Your task to perform on an android device: change the clock display to digital Image 0: 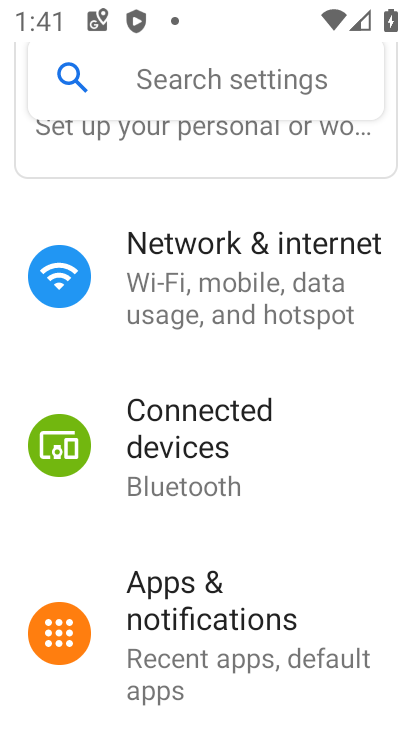
Step 0: press home button
Your task to perform on an android device: change the clock display to digital Image 1: 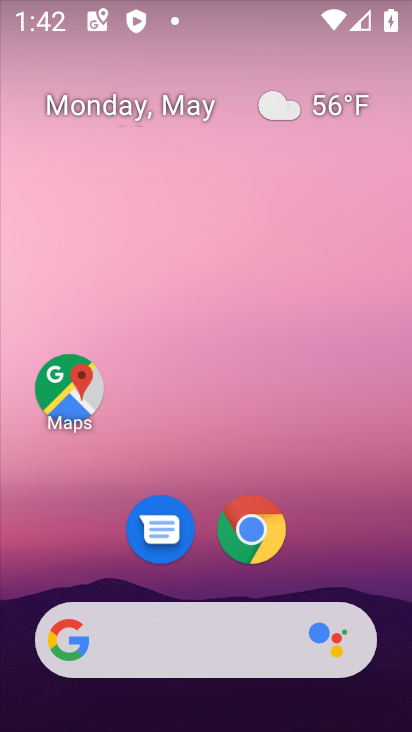
Step 1: drag from (319, 549) to (350, 68)
Your task to perform on an android device: change the clock display to digital Image 2: 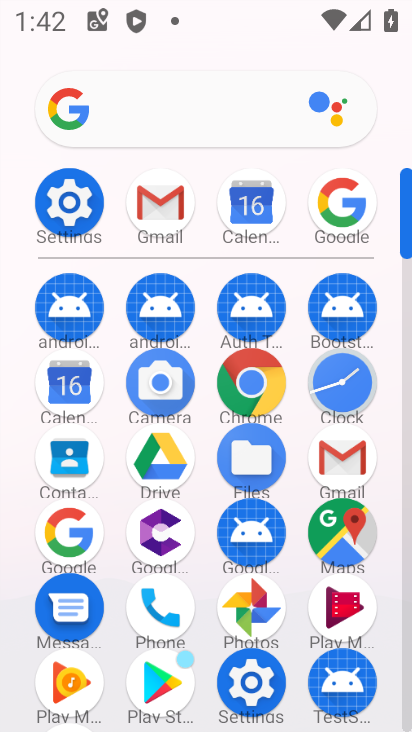
Step 2: click (359, 395)
Your task to perform on an android device: change the clock display to digital Image 3: 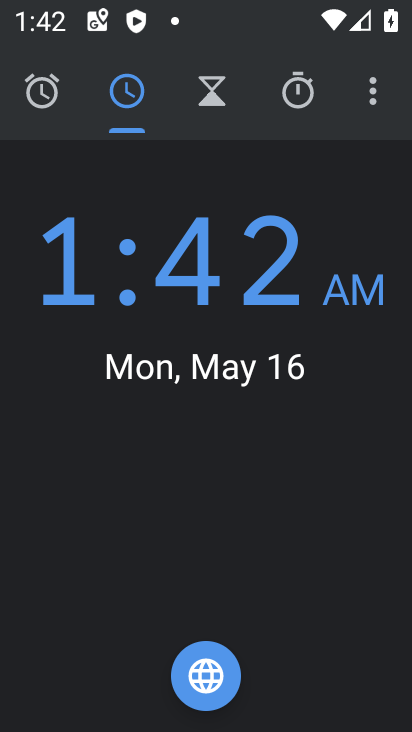
Step 3: click (359, 91)
Your task to perform on an android device: change the clock display to digital Image 4: 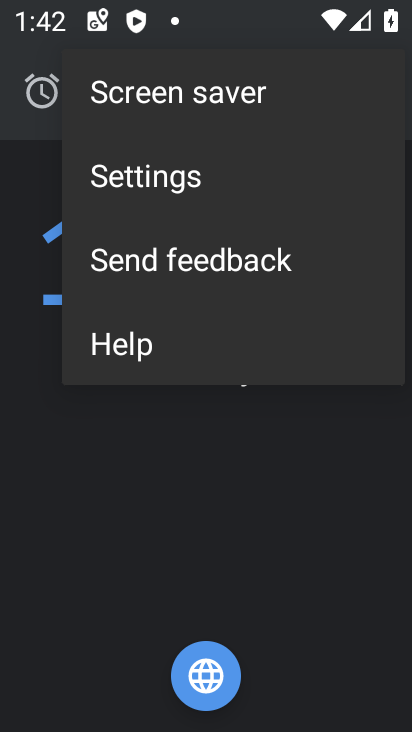
Step 4: click (179, 189)
Your task to perform on an android device: change the clock display to digital Image 5: 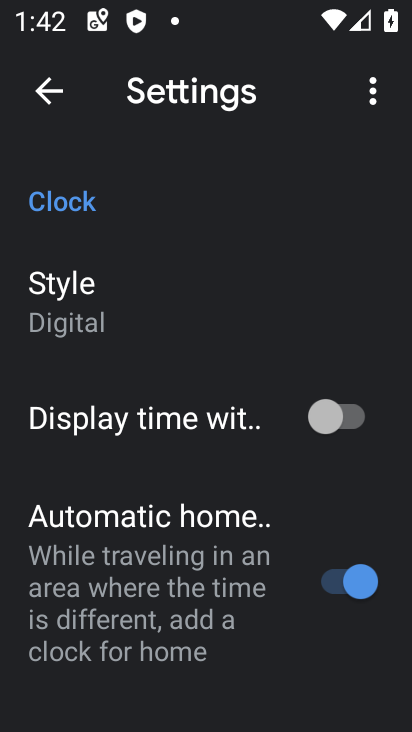
Step 5: click (86, 333)
Your task to perform on an android device: change the clock display to digital Image 6: 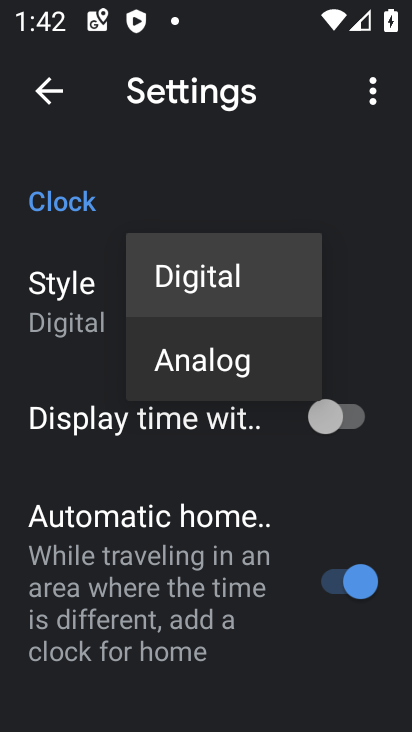
Step 6: click (266, 274)
Your task to perform on an android device: change the clock display to digital Image 7: 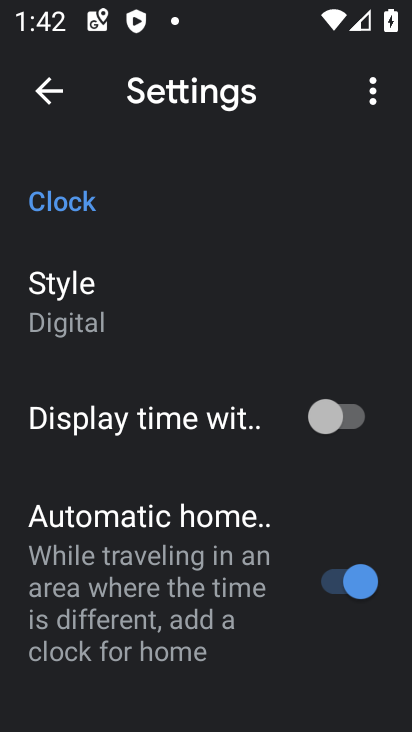
Step 7: task complete